Your task to perform on an android device: Go to eBay Image 0: 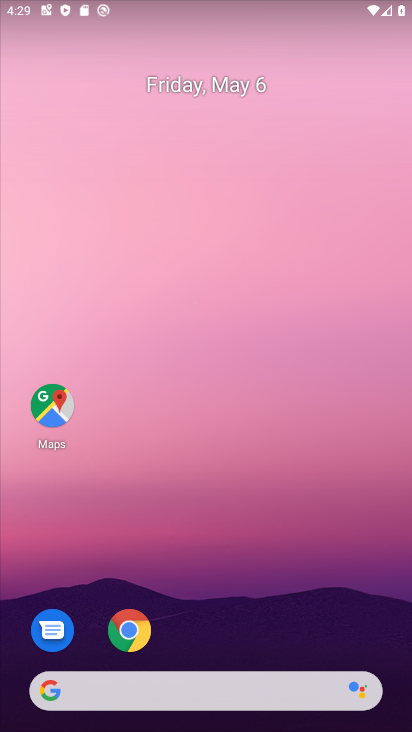
Step 0: click (144, 631)
Your task to perform on an android device: Go to eBay Image 1: 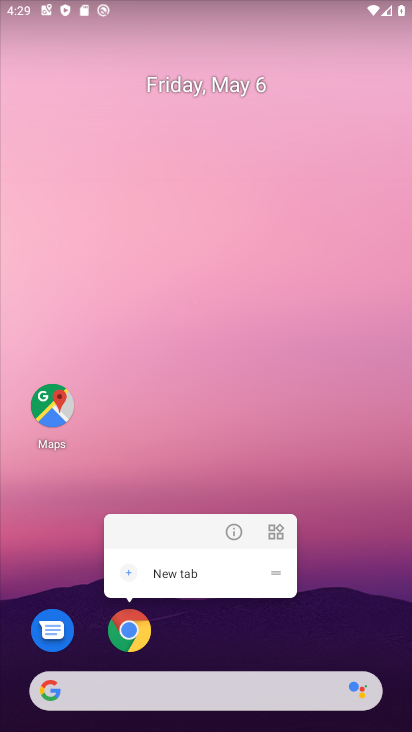
Step 1: click (144, 631)
Your task to perform on an android device: Go to eBay Image 2: 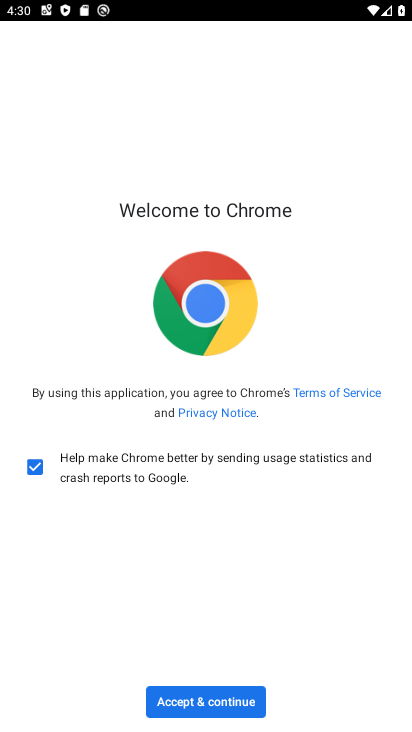
Step 2: click (187, 709)
Your task to perform on an android device: Go to eBay Image 3: 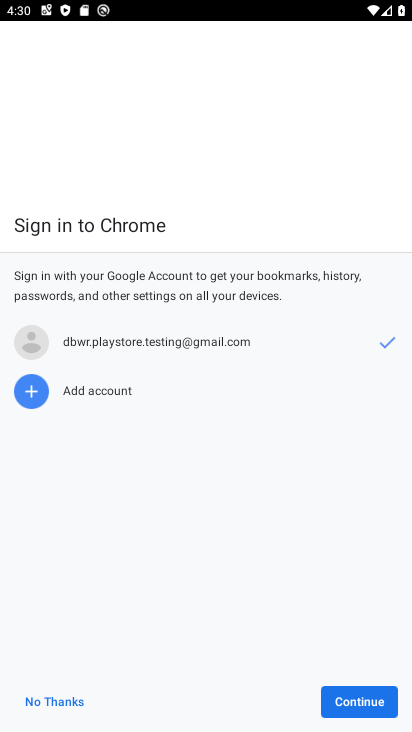
Step 3: click (329, 704)
Your task to perform on an android device: Go to eBay Image 4: 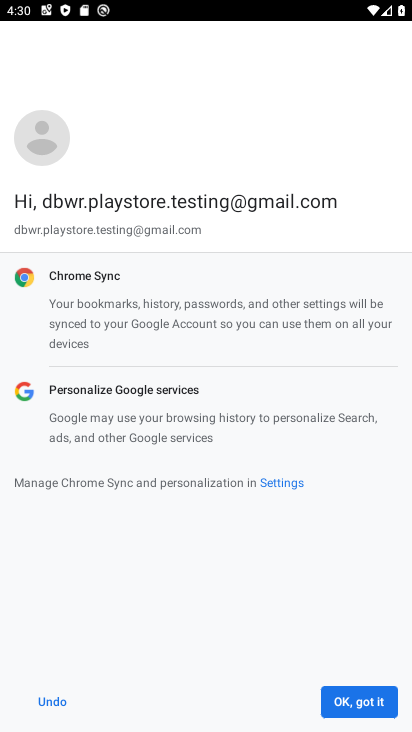
Step 4: click (379, 689)
Your task to perform on an android device: Go to eBay Image 5: 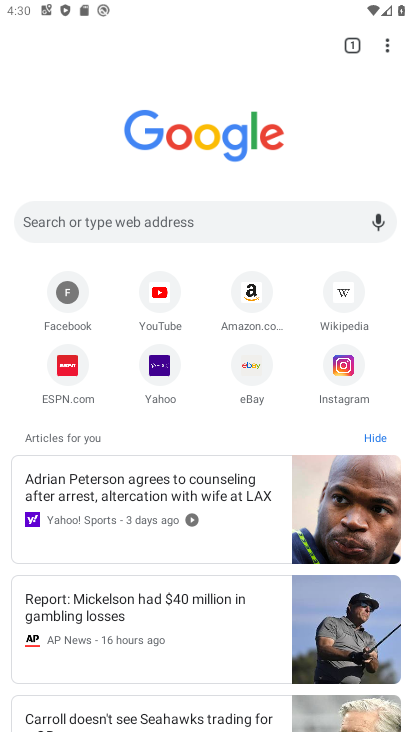
Step 5: click (264, 373)
Your task to perform on an android device: Go to eBay Image 6: 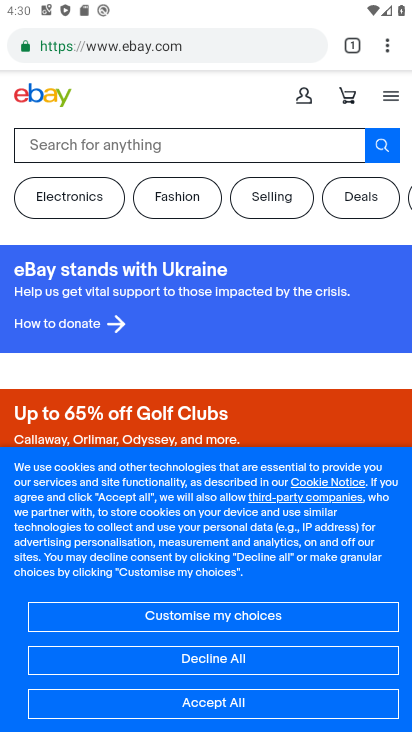
Step 6: task complete